Your task to perform on an android device: set default search engine in the chrome app Image 0: 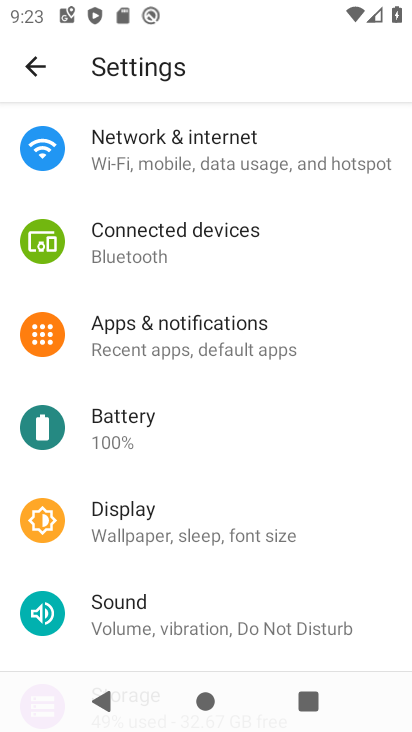
Step 0: press home button
Your task to perform on an android device: set default search engine in the chrome app Image 1: 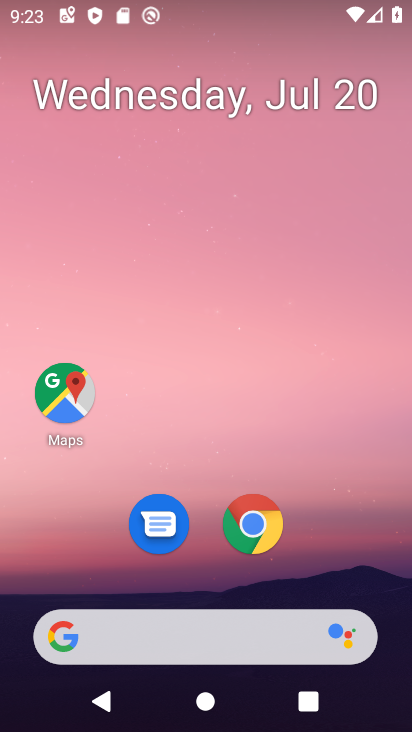
Step 1: click (248, 521)
Your task to perform on an android device: set default search engine in the chrome app Image 2: 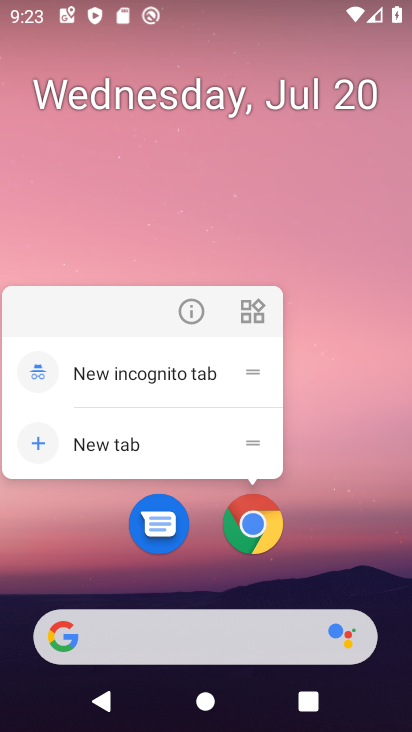
Step 2: click (248, 524)
Your task to perform on an android device: set default search engine in the chrome app Image 3: 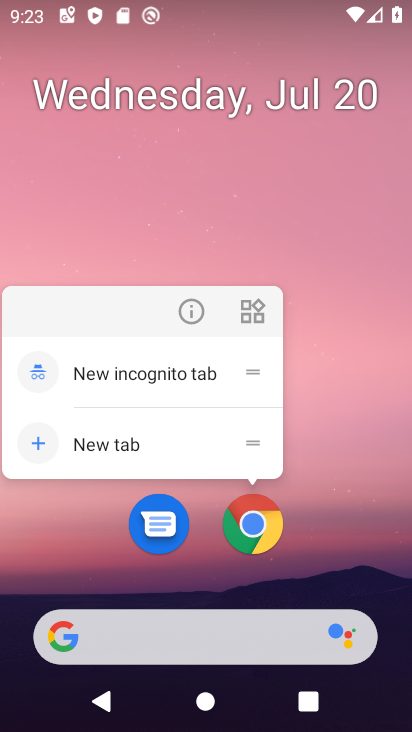
Step 3: click (258, 519)
Your task to perform on an android device: set default search engine in the chrome app Image 4: 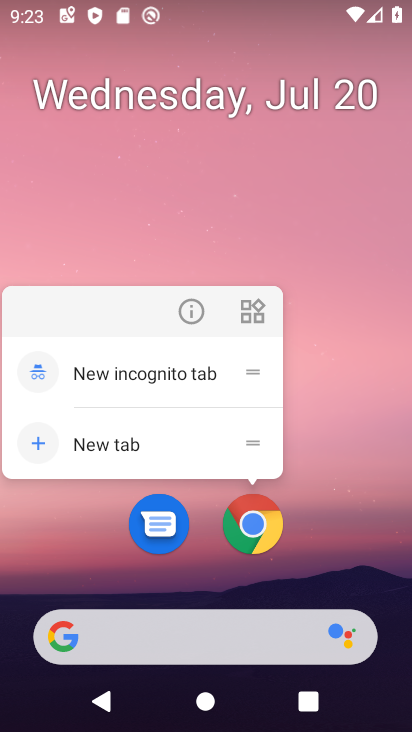
Step 4: click (252, 523)
Your task to perform on an android device: set default search engine in the chrome app Image 5: 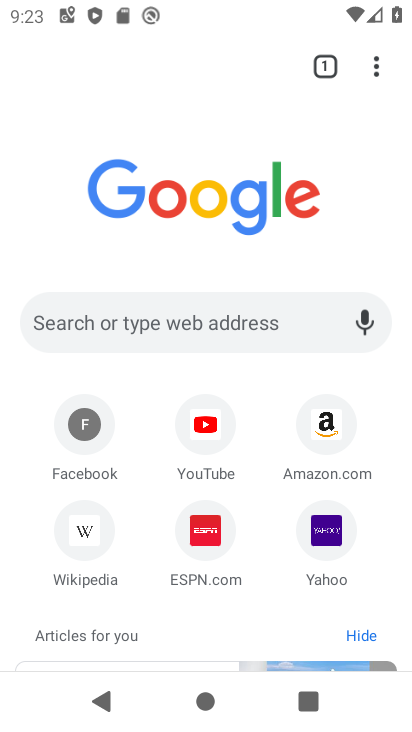
Step 5: drag from (374, 62) to (219, 563)
Your task to perform on an android device: set default search engine in the chrome app Image 6: 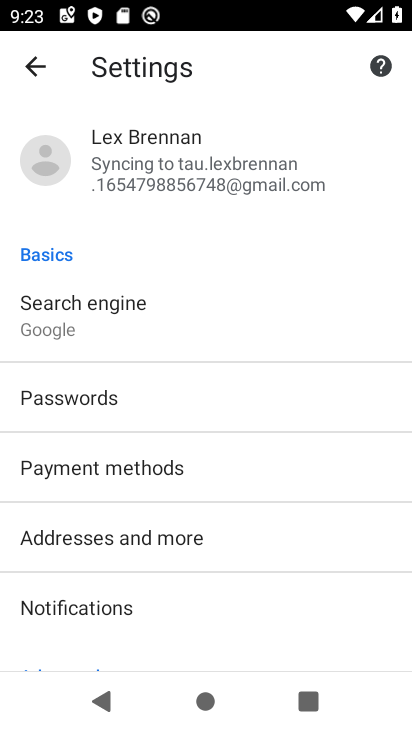
Step 6: click (77, 316)
Your task to perform on an android device: set default search engine in the chrome app Image 7: 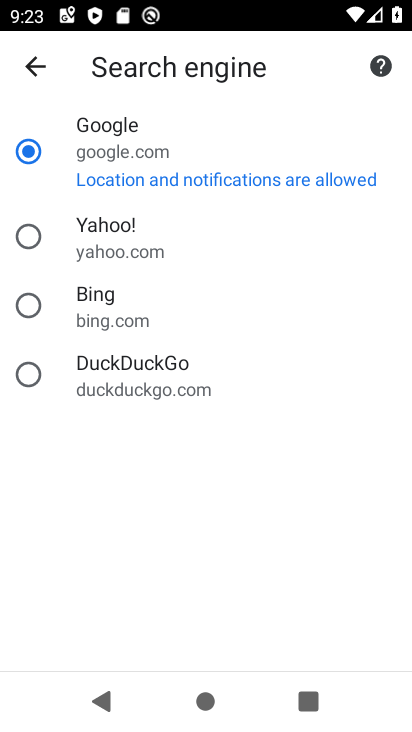
Step 7: click (28, 241)
Your task to perform on an android device: set default search engine in the chrome app Image 8: 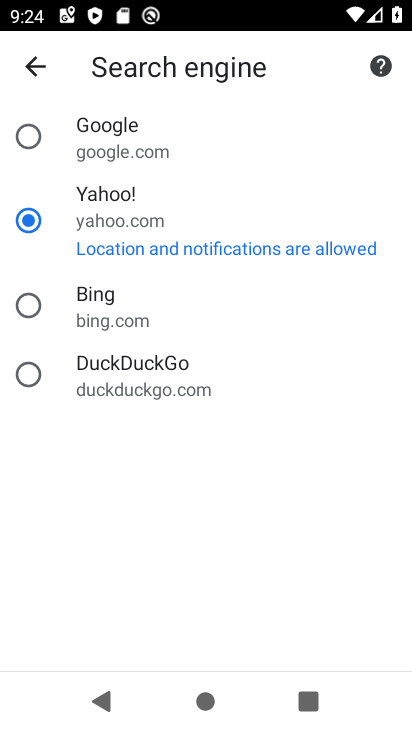
Step 8: task complete